Your task to perform on an android device: open a new tab in the chrome app Image 0: 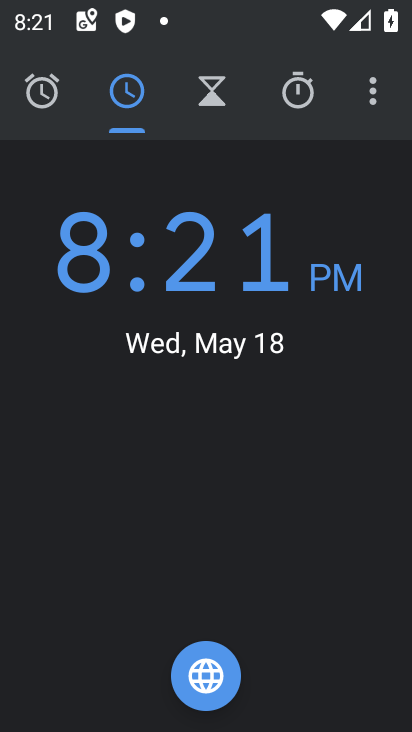
Step 0: press home button
Your task to perform on an android device: open a new tab in the chrome app Image 1: 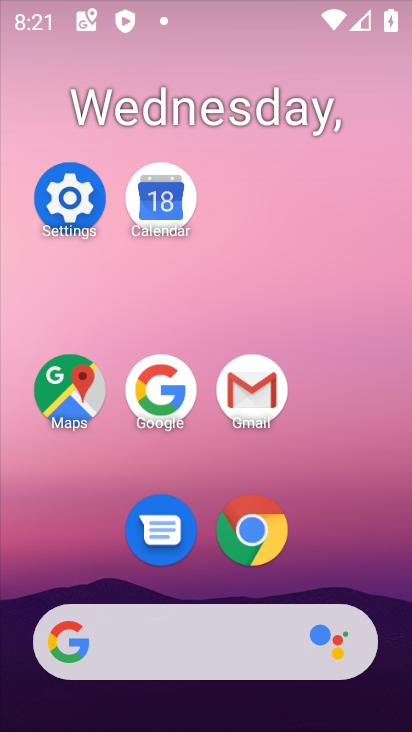
Step 1: click (255, 532)
Your task to perform on an android device: open a new tab in the chrome app Image 2: 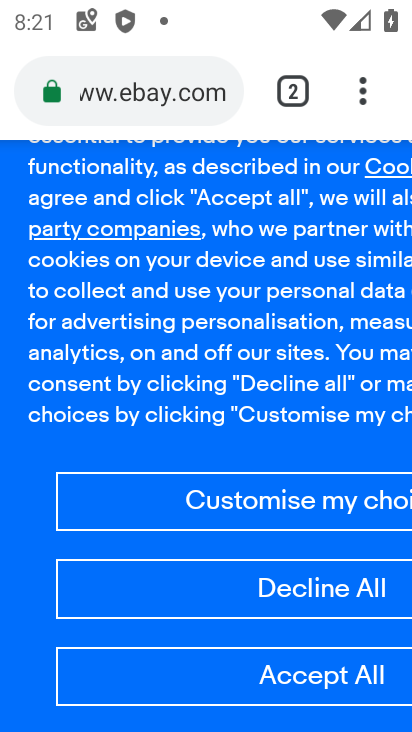
Step 2: click (291, 104)
Your task to perform on an android device: open a new tab in the chrome app Image 3: 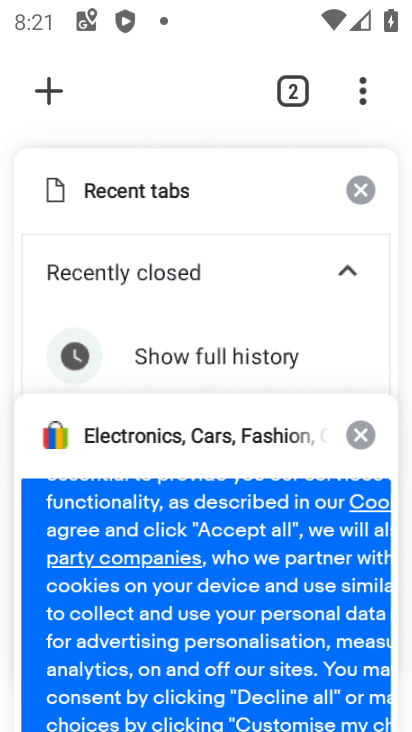
Step 3: click (26, 102)
Your task to perform on an android device: open a new tab in the chrome app Image 4: 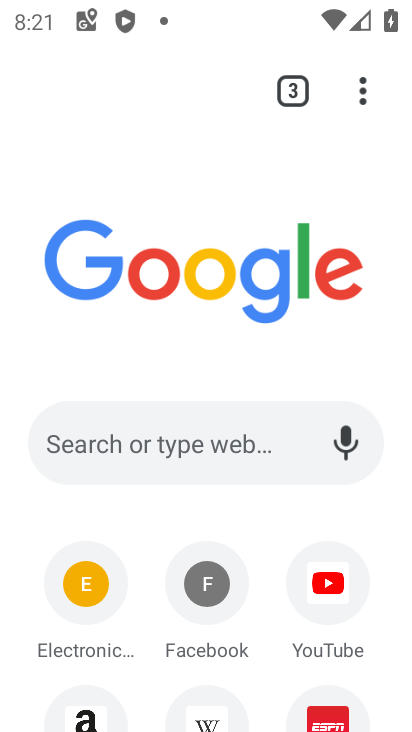
Step 4: task complete